Your task to perform on an android device: Find coffee shops on Maps Image 0: 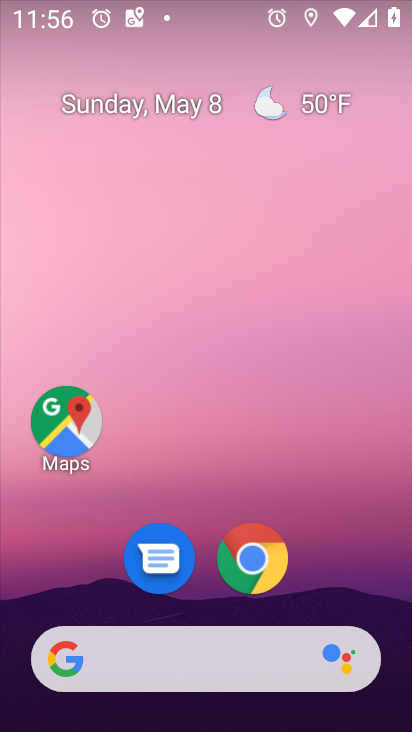
Step 0: click (64, 431)
Your task to perform on an android device: Find coffee shops on Maps Image 1: 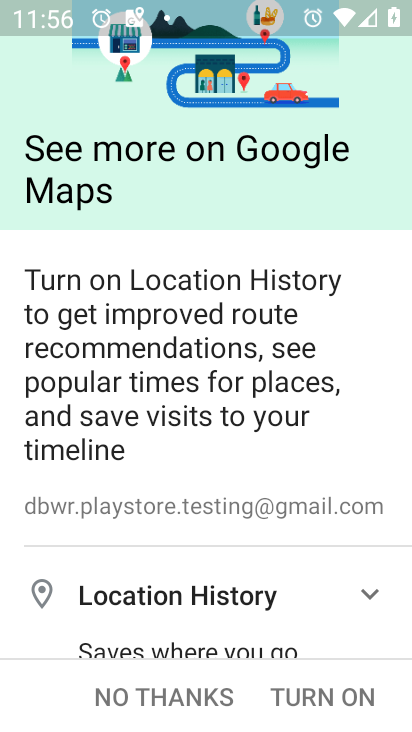
Step 1: click (352, 705)
Your task to perform on an android device: Find coffee shops on Maps Image 2: 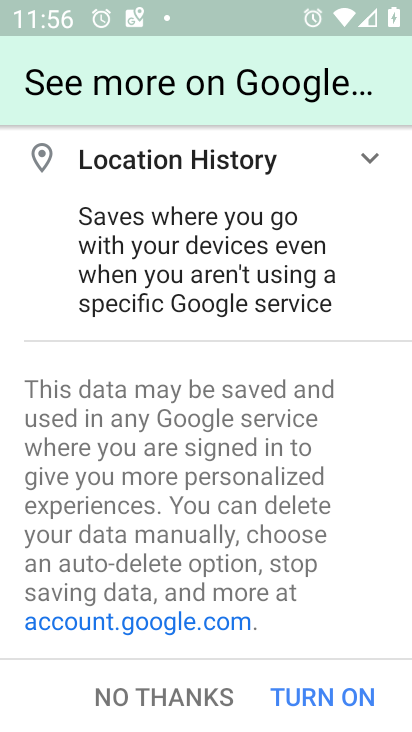
Step 2: click (352, 705)
Your task to perform on an android device: Find coffee shops on Maps Image 3: 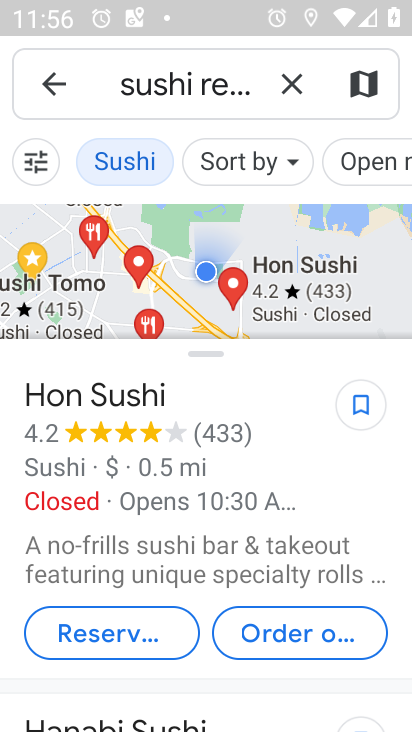
Step 3: click (293, 87)
Your task to perform on an android device: Find coffee shops on Maps Image 4: 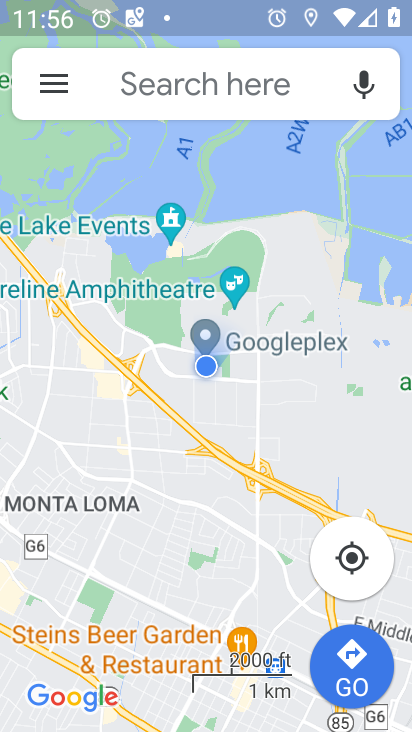
Step 4: click (171, 86)
Your task to perform on an android device: Find coffee shops on Maps Image 5: 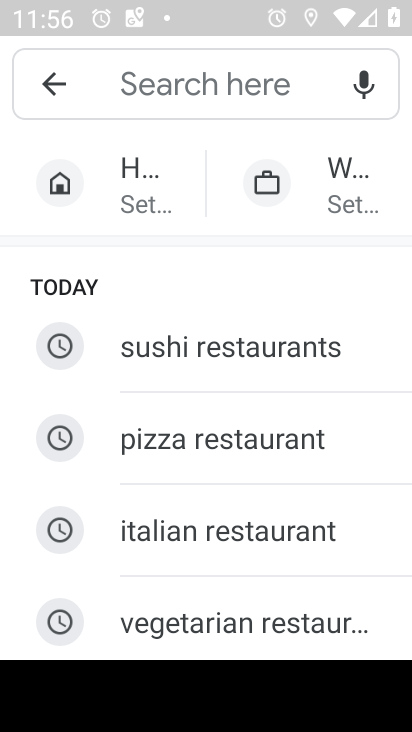
Step 5: drag from (207, 587) to (193, 197)
Your task to perform on an android device: Find coffee shops on Maps Image 6: 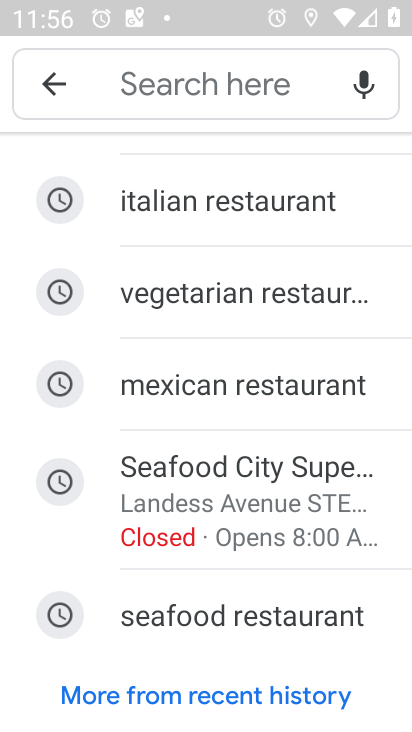
Step 6: click (201, 72)
Your task to perform on an android device: Find coffee shops on Maps Image 7: 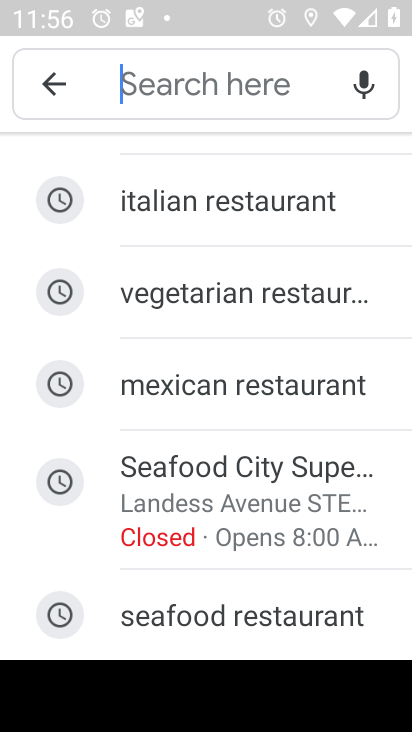
Step 7: type "coffee shops"
Your task to perform on an android device: Find coffee shops on Maps Image 8: 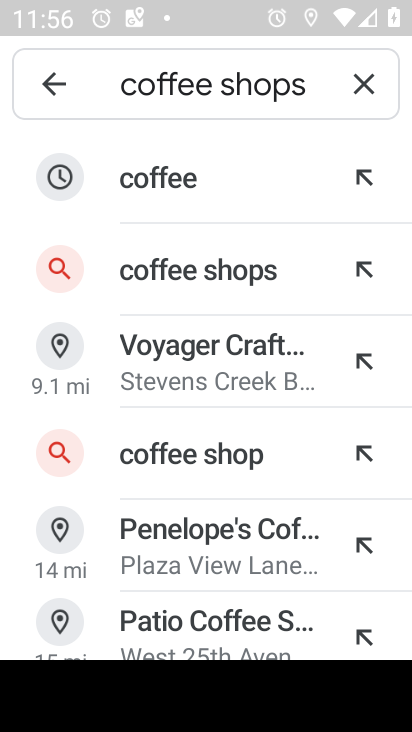
Step 8: click (209, 277)
Your task to perform on an android device: Find coffee shops on Maps Image 9: 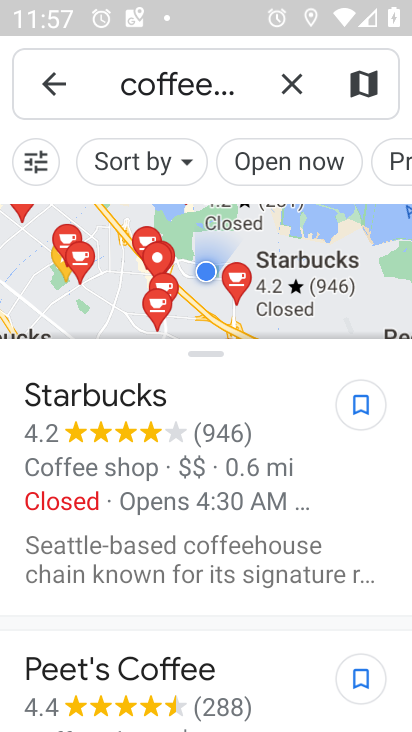
Step 9: task complete